Your task to perform on an android device: Go to network settings Image 0: 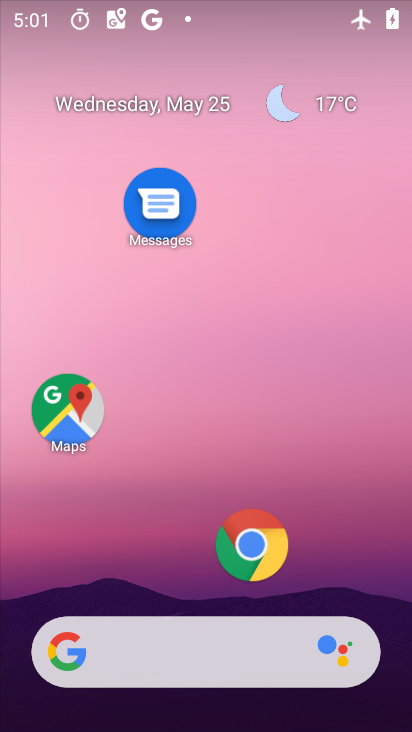
Step 0: drag from (181, 586) to (226, 100)
Your task to perform on an android device: Go to network settings Image 1: 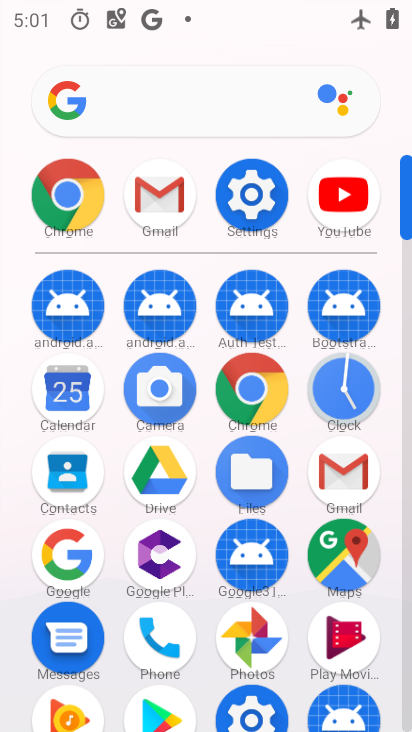
Step 1: click (249, 223)
Your task to perform on an android device: Go to network settings Image 2: 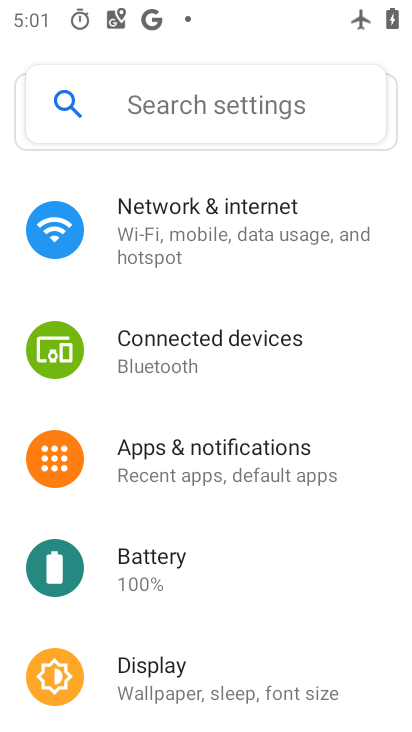
Step 2: click (245, 236)
Your task to perform on an android device: Go to network settings Image 3: 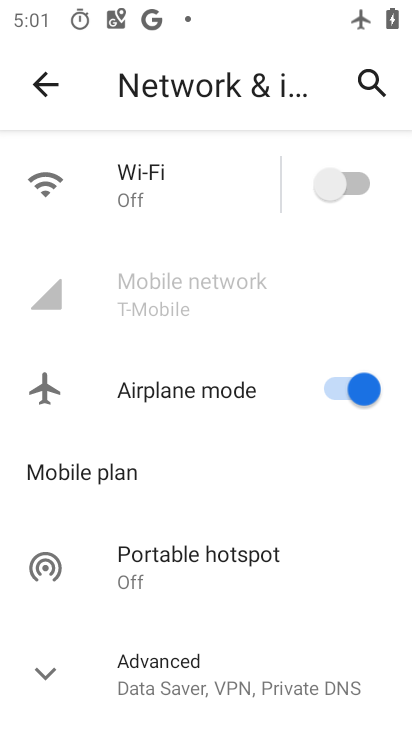
Step 3: task complete